Your task to perform on an android device: Open Yahoo.com Image 0: 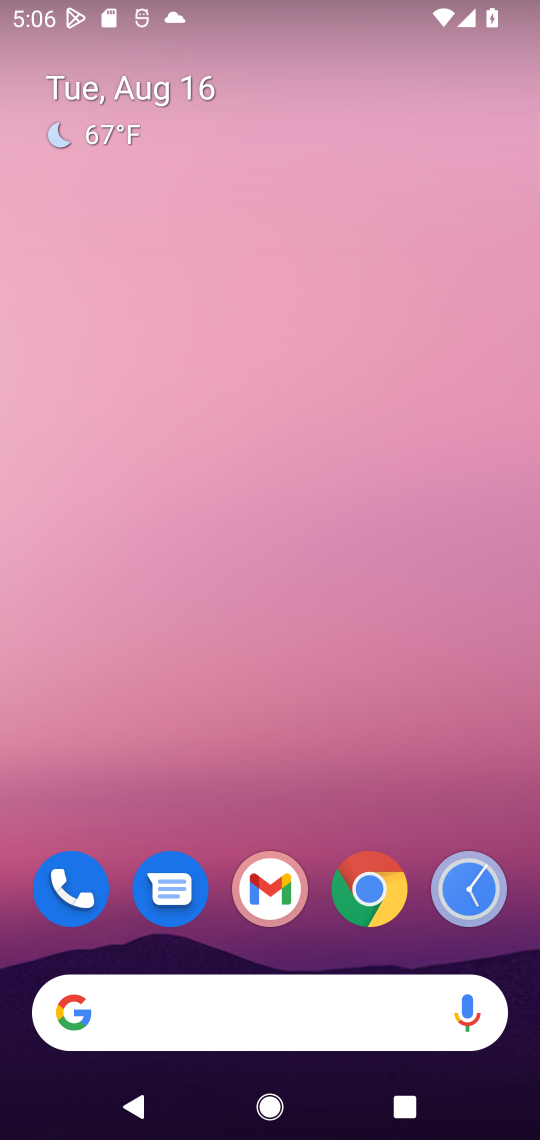
Step 0: click (303, 1001)
Your task to perform on an android device: Open Yahoo.com Image 1: 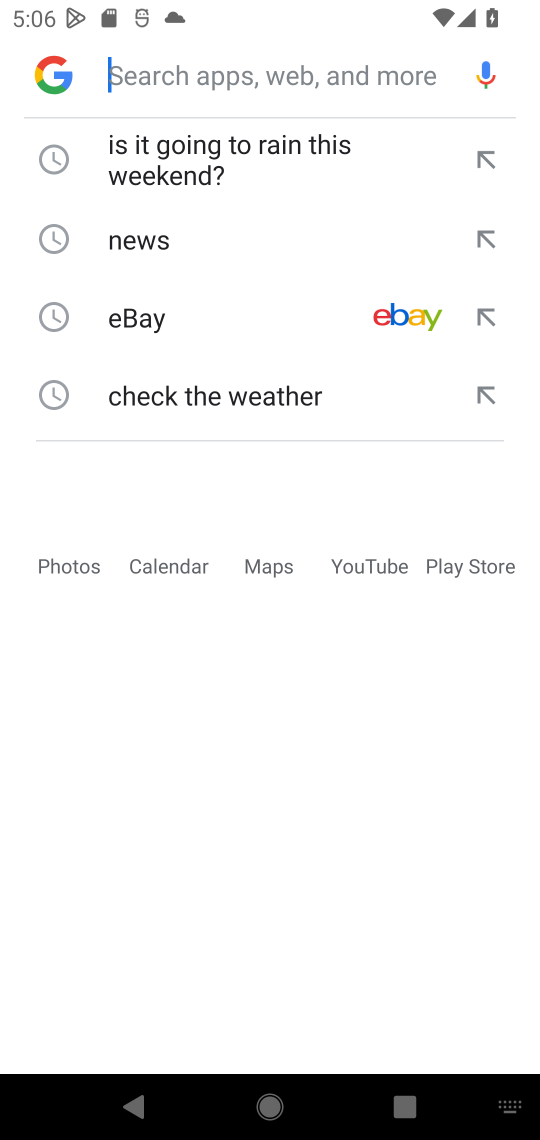
Step 1: type "Yahoo.com"
Your task to perform on an android device: Open Yahoo.com Image 2: 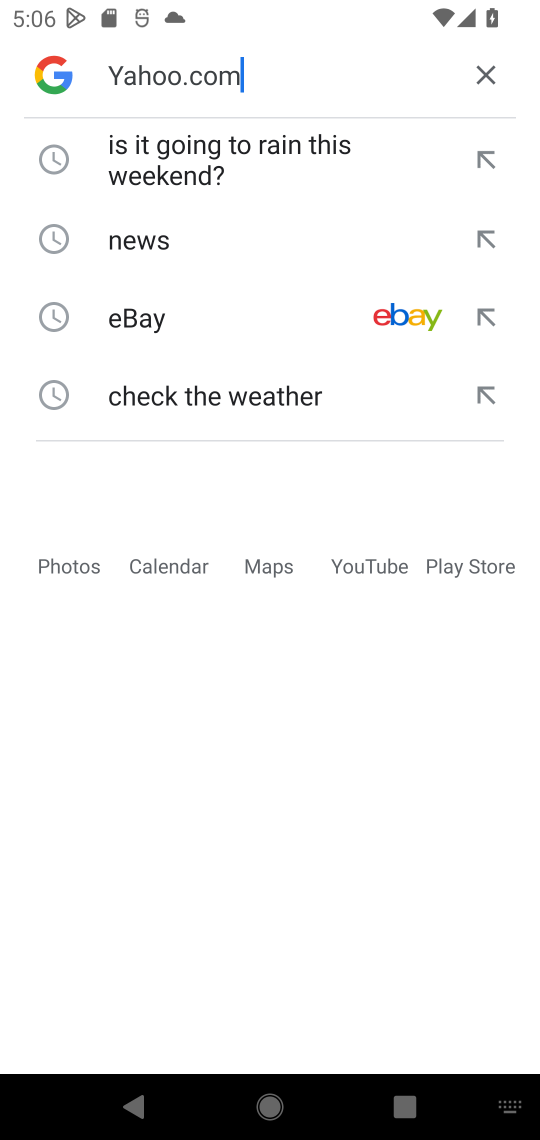
Step 2: press enter
Your task to perform on an android device: Open Yahoo.com Image 3: 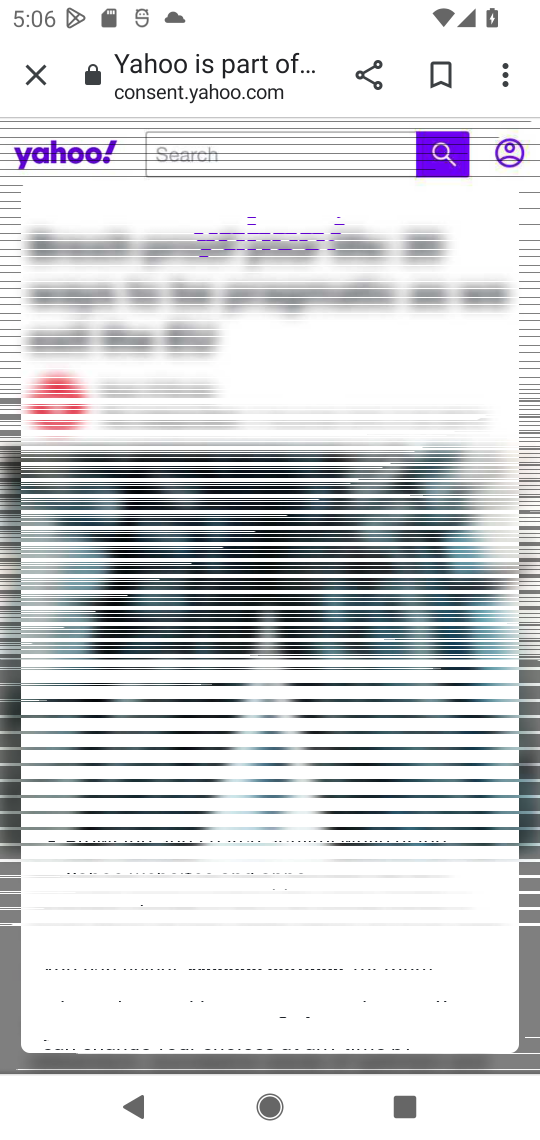
Step 3: task complete